Your task to perform on an android device: Is it going to rain today? Image 0: 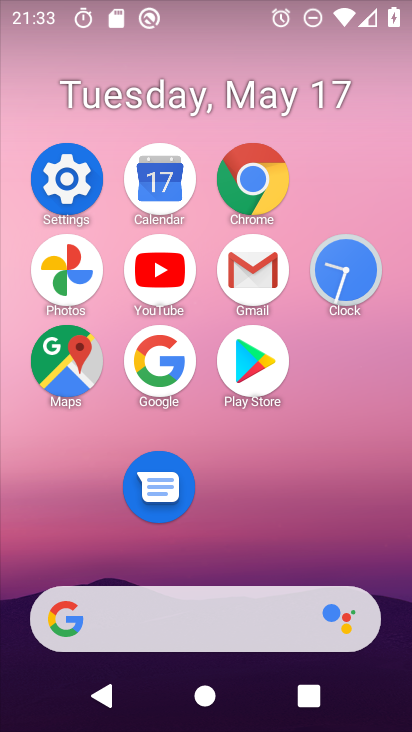
Step 0: click (151, 384)
Your task to perform on an android device: Is it going to rain today? Image 1: 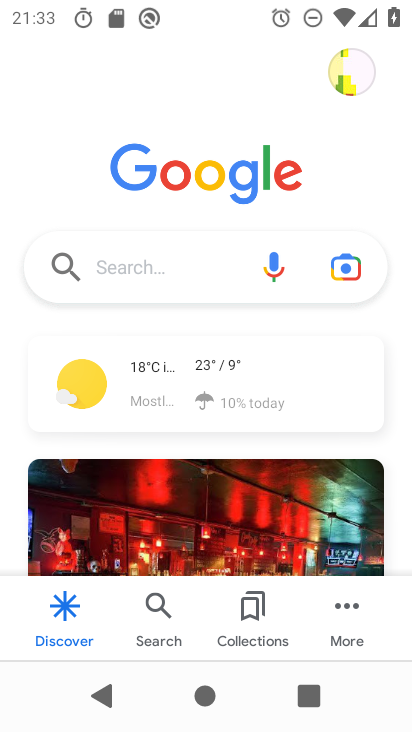
Step 1: click (154, 370)
Your task to perform on an android device: Is it going to rain today? Image 2: 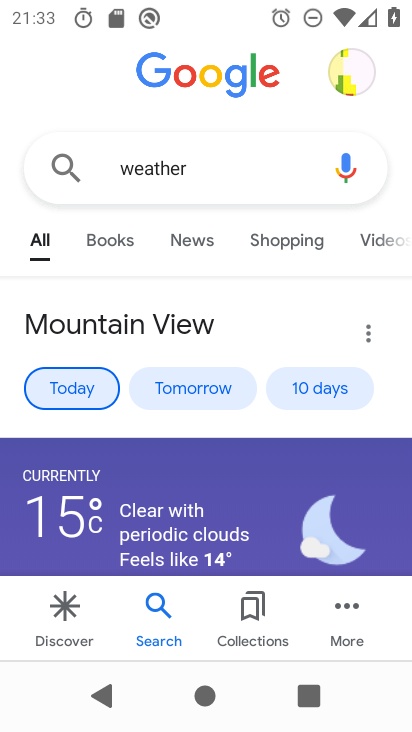
Step 2: task complete